Your task to perform on an android device: Go to internet settings Image 0: 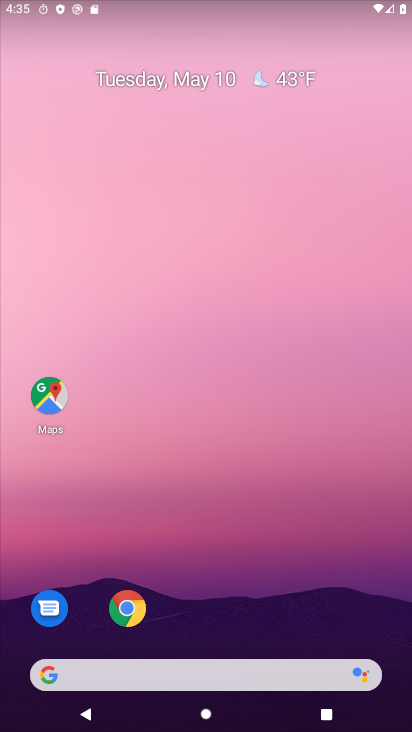
Step 0: drag from (301, 631) to (120, 93)
Your task to perform on an android device: Go to internet settings Image 1: 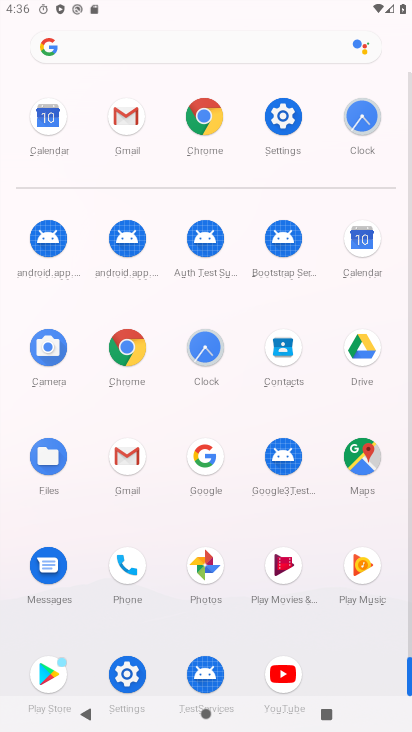
Step 1: click (277, 123)
Your task to perform on an android device: Go to internet settings Image 2: 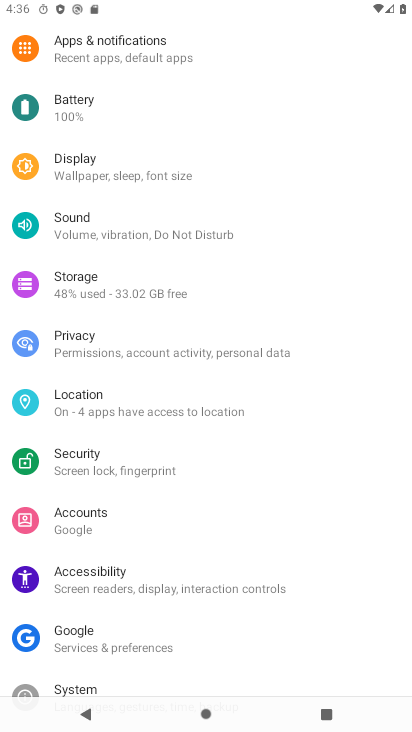
Step 2: drag from (108, 425) to (41, 132)
Your task to perform on an android device: Go to internet settings Image 3: 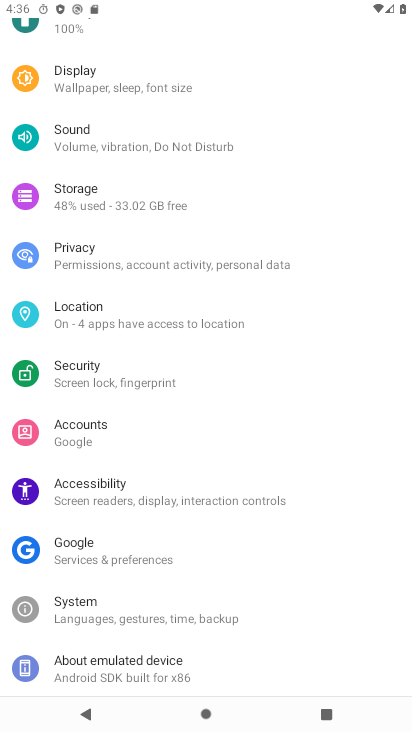
Step 3: drag from (181, 479) to (141, 110)
Your task to perform on an android device: Go to internet settings Image 4: 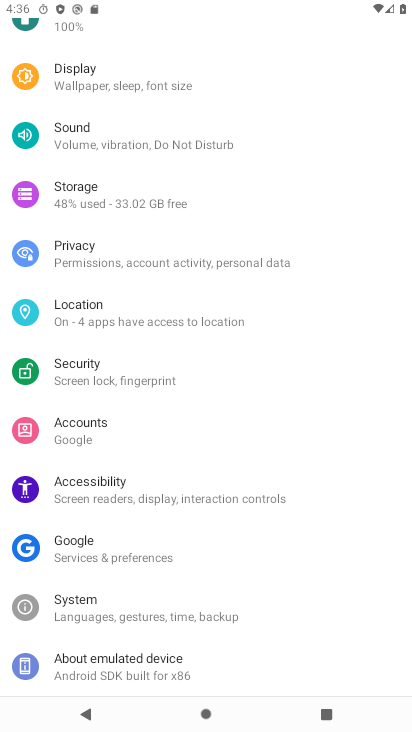
Step 4: drag from (110, 102) to (210, 494)
Your task to perform on an android device: Go to internet settings Image 5: 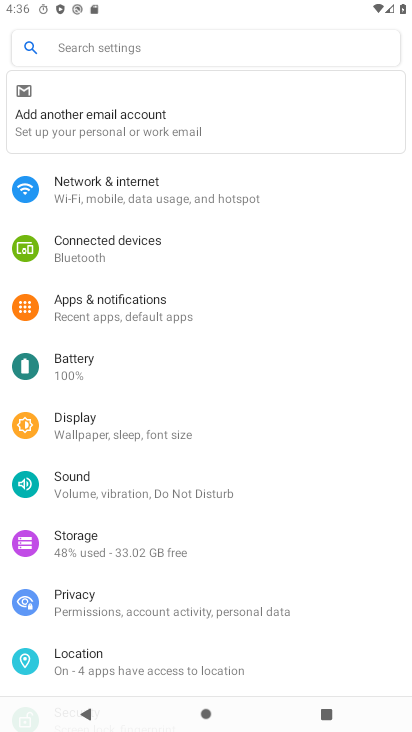
Step 5: drag from (133, 133) to (161, 437)
Your task to perform on an android device: Go to internet settings Image 6: 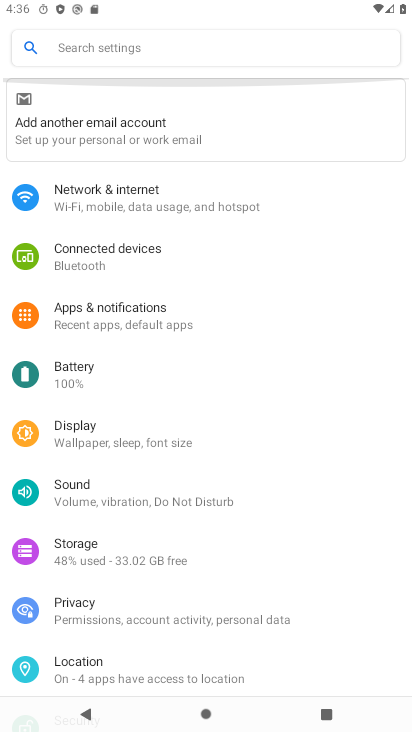
Step 6: drag from (99, 136) to (176, 379)
Your task to perform on an android device: Go to internet settings Image 7: 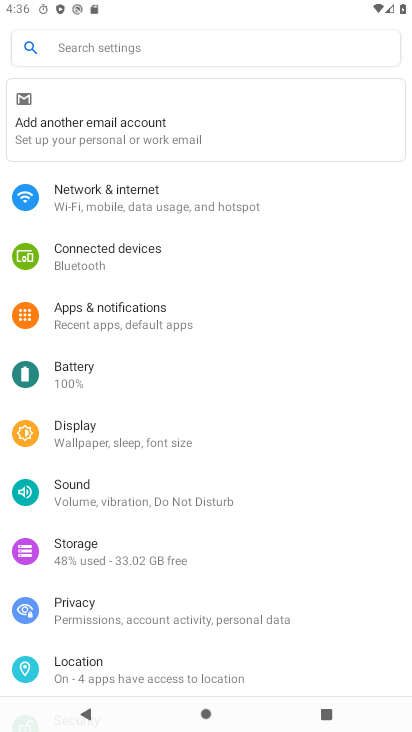
Step 7: click (106, 205)
Your task to perform on an android device: Go to internet settings Image 8: 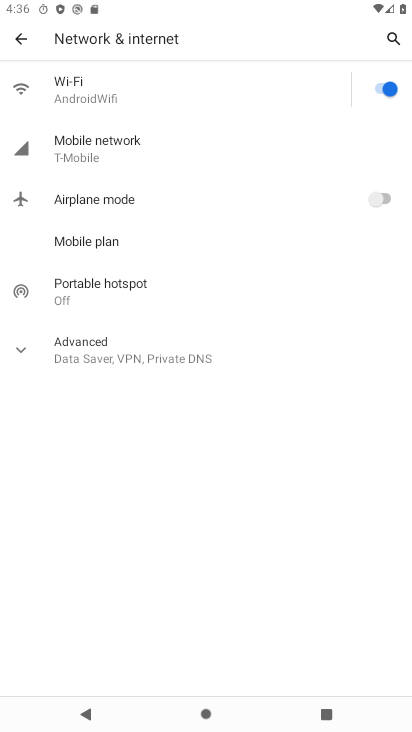
Step 8: task complete